Your task to perform on an android device: delete a single message in the gmail app Image 0: 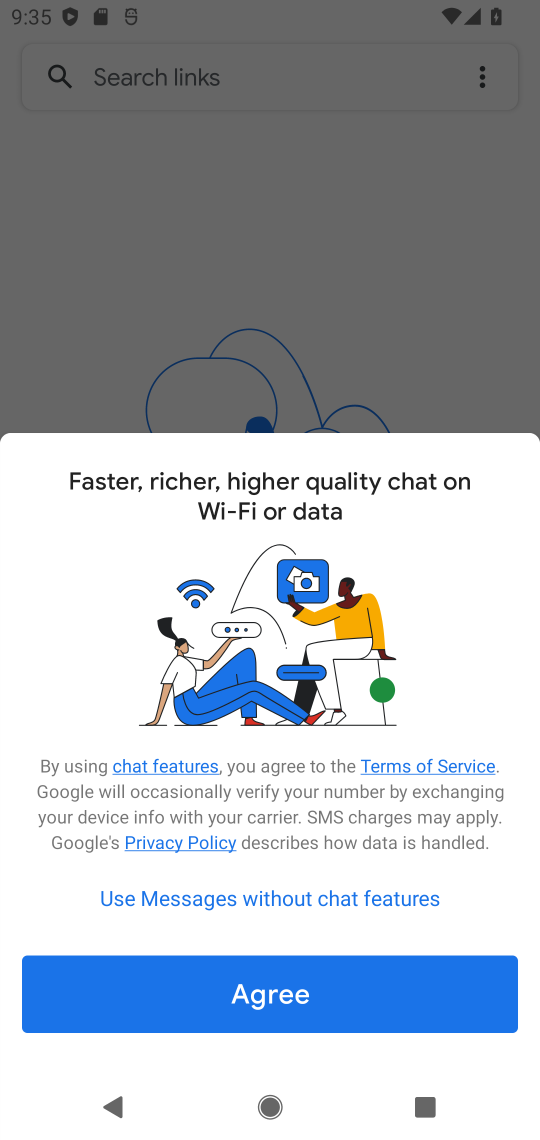
Step 0: press home button
Your task to perform on an android device: delete a single message in the gmail app Image 1: 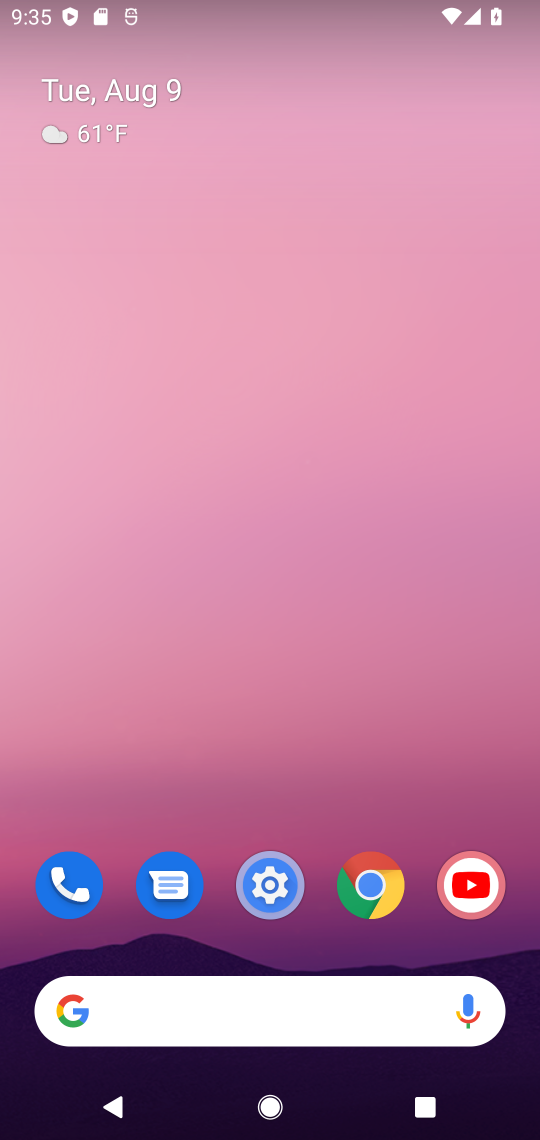
Step 1: drag from (321, 940) to (396, 147)
Your task to perform on an android device: delete a single message in the gmail app Image 2: 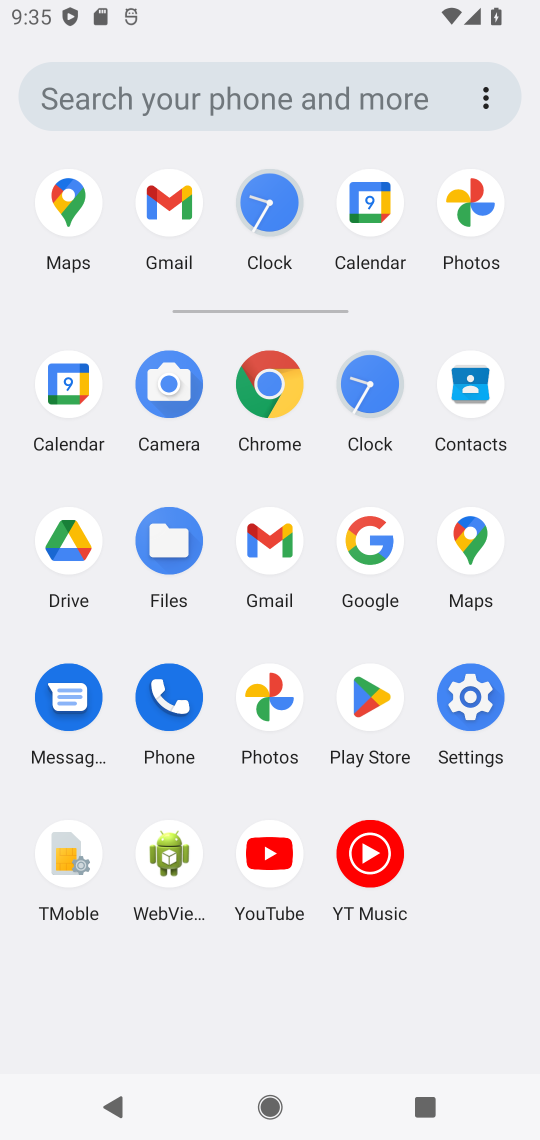
Step 2: click (265, 530)
Your task to perform on an android device: delete a single message in the gmail app Image 3: 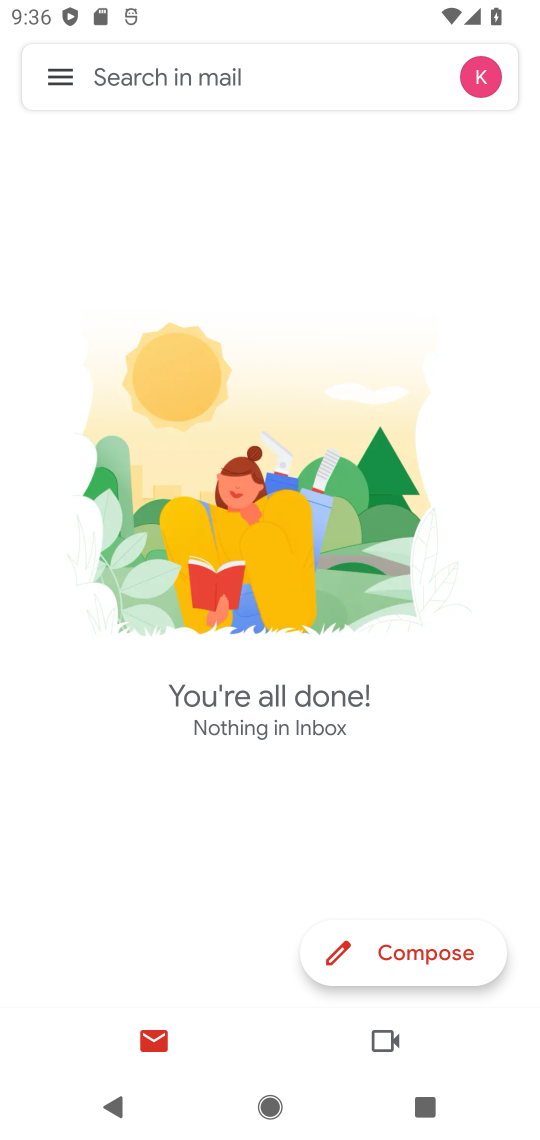
Step 3: task complete